Your task to perform on an android device: turn on priority inbox in the gmail app Image 0: 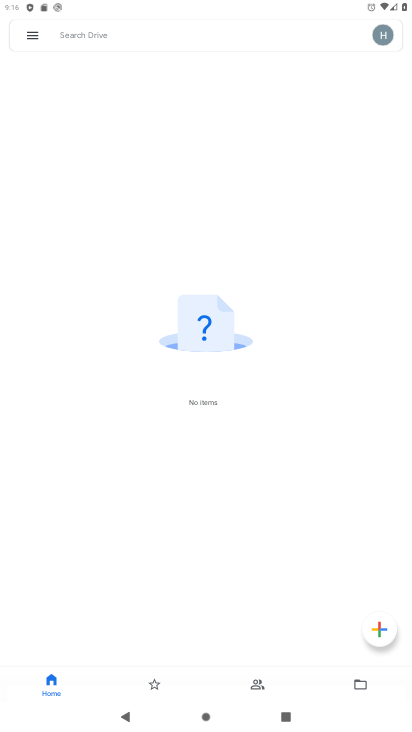
Step 0: press home button
Your task to perform on an android device: turn on priority inbox in the gmail app Image 1: 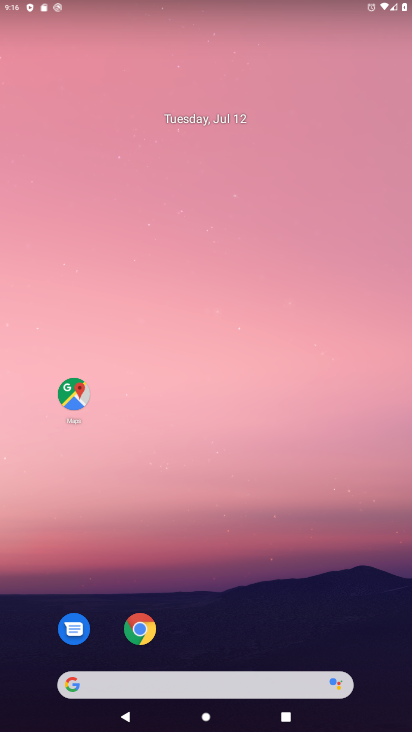
Step 1: drag from (375, 642) to (315, 81)
Your task to perform on an android device: turn on priority inbox in the gmail app Image 2: 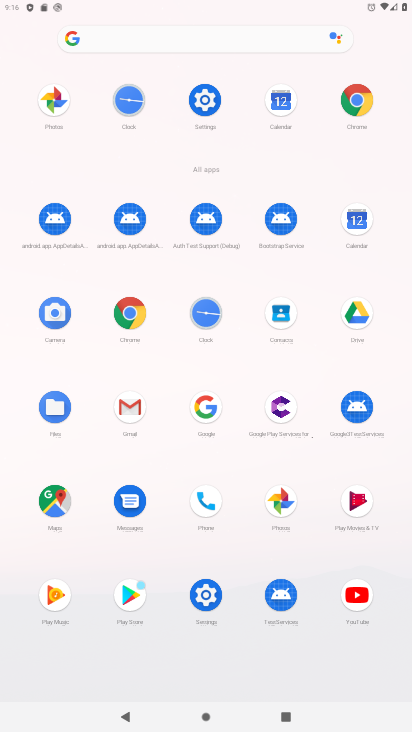
Step 2: click (128, 404)
Your task to perform on an android device: turn on priority inbox in the gmail app Image 3: 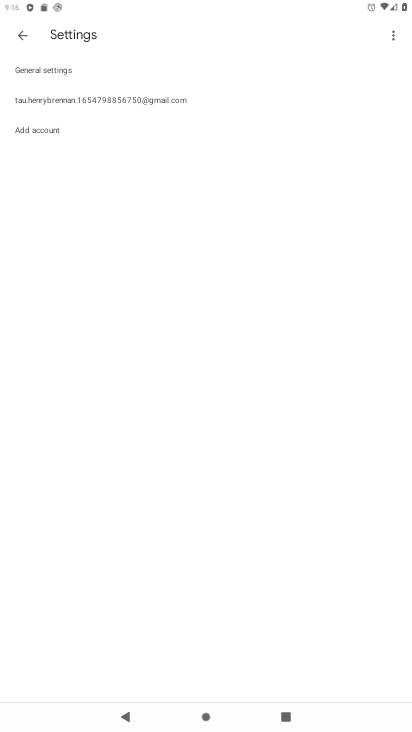
Step 3: click (93, 98)
Your task to perform on an android device: turn on priority inbox in the gmail app Image 4: 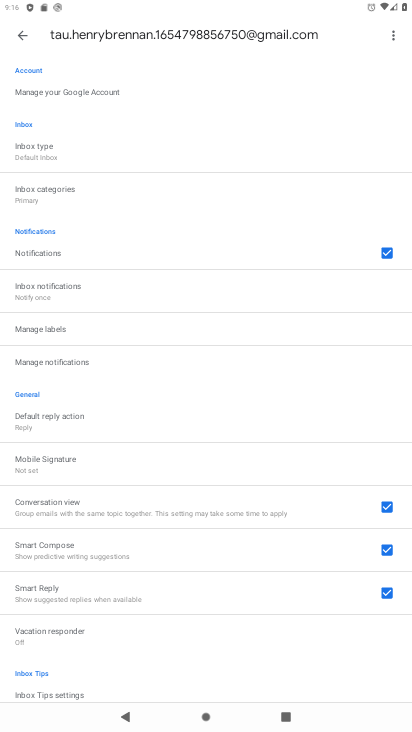
Step 4: click (50, 155)
Your task to perform on an android device: turn on priority inbox in the gmail app Image 5: 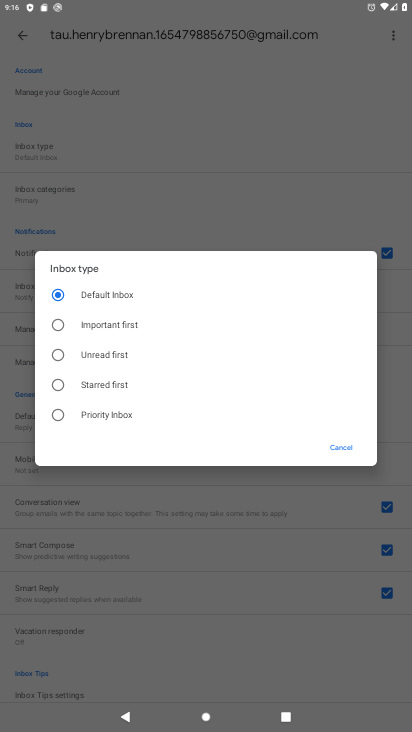
Step 5: click (52, 420)
Your task to perform on an android device: turn on priority inbox in the gmail app Image 6: 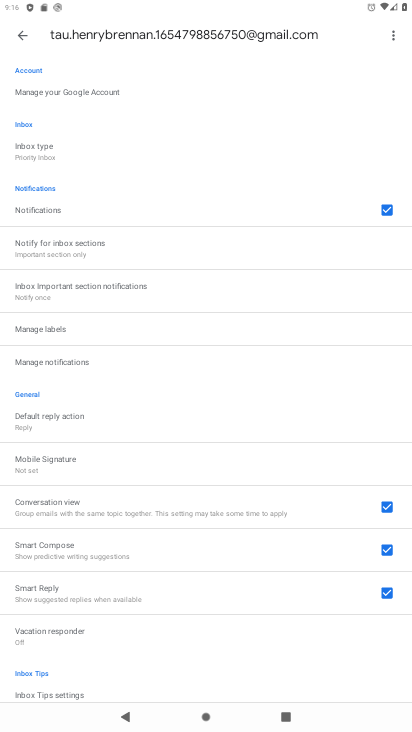
Step 6: task complete